Your task to perform on an android device: choose inbox layout in the gmail app Image 0: 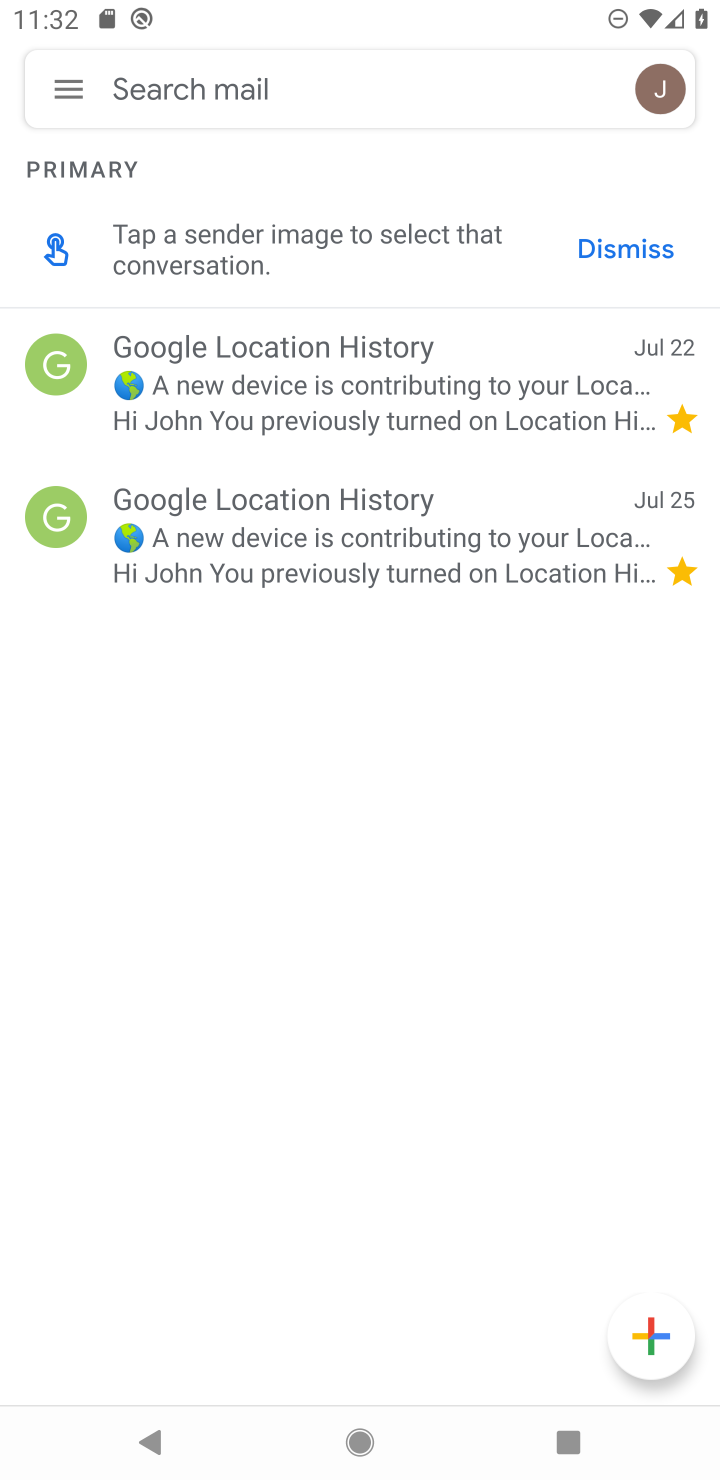
Step 0: drag from (198, 1265) to (415, 674)
Your task to perform on an android device: choose inbox layout in the gmail app Image 1: 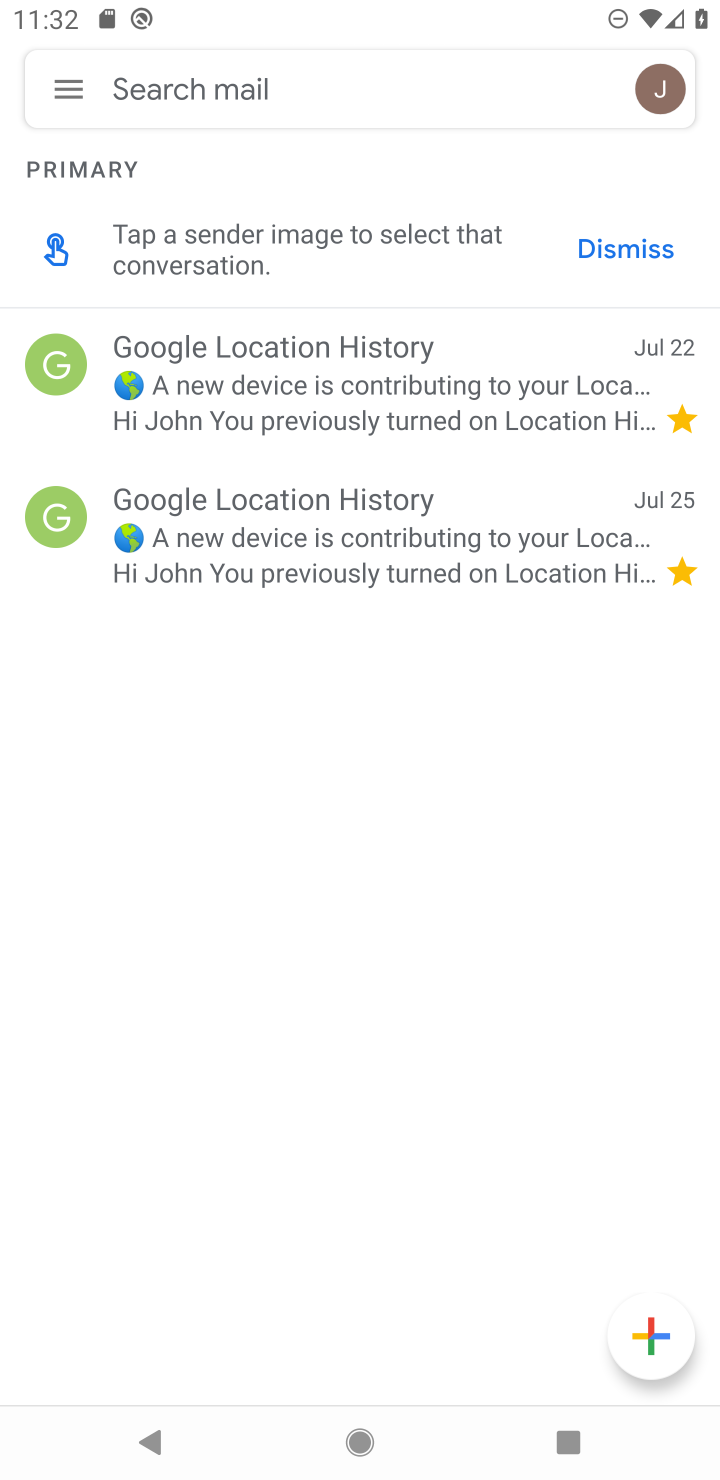
Step 1: drag from (416, 133) to (623, 899)
Your task to perform on an android device: choose inbox layout in the gmail app Image 2: 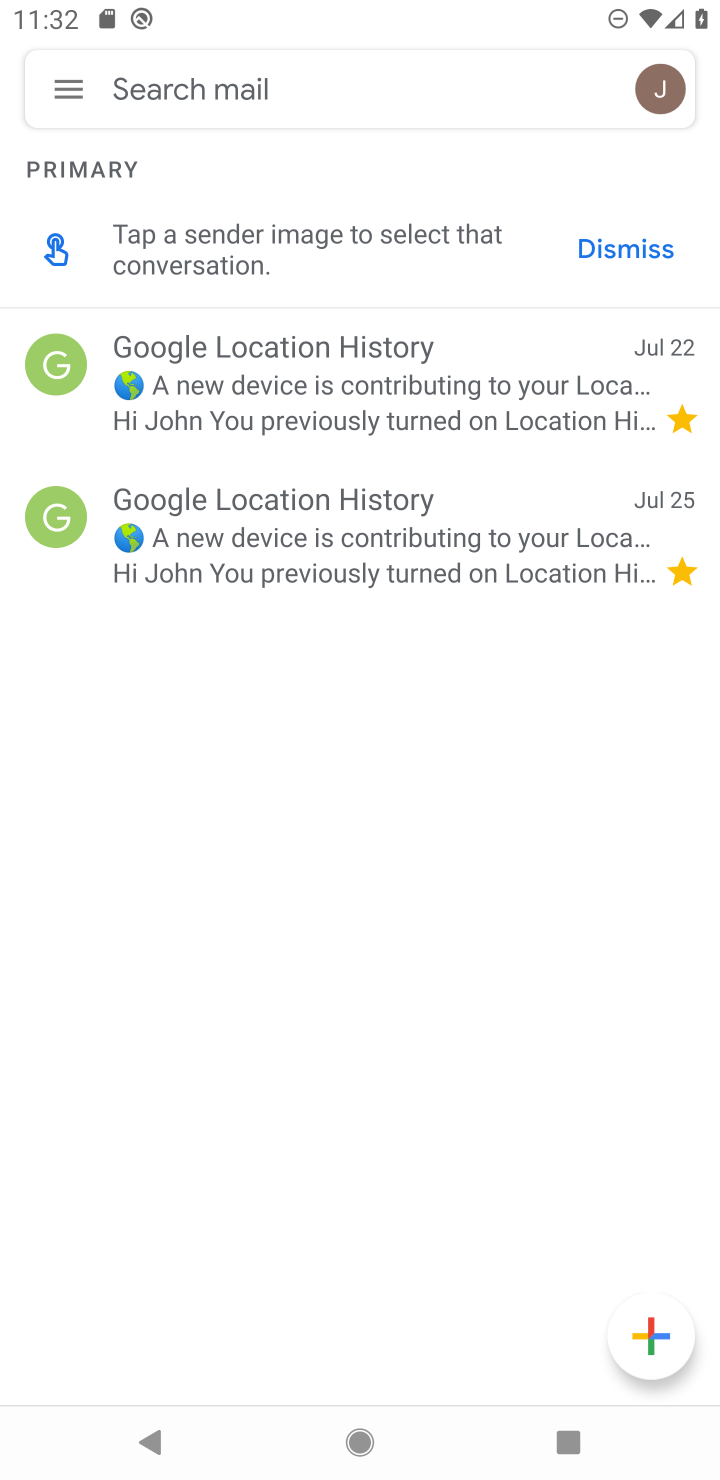
Step 2: drag from (317, 931) to (577, 283)
Your task to perform on an android device: choose inbox layout in the gmail app Image 3: 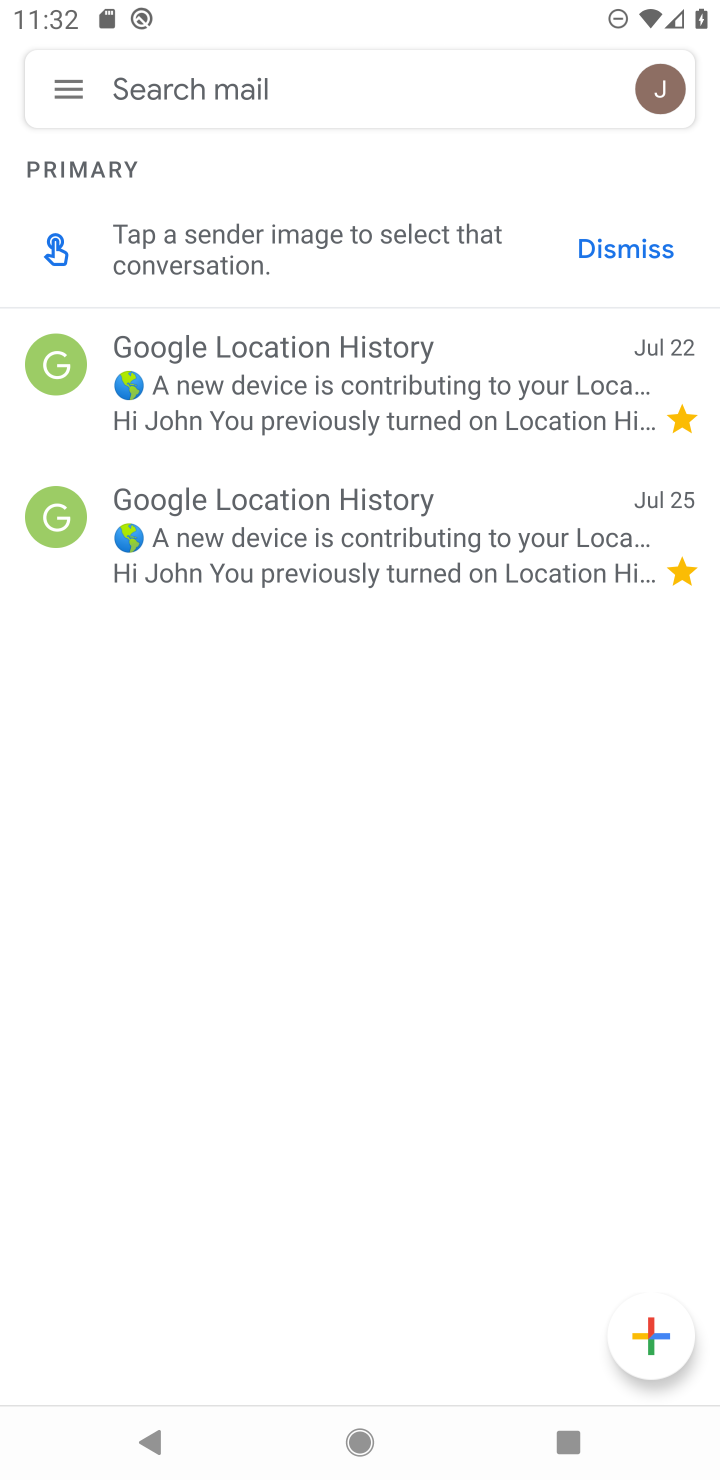
Step 3: drag from (363, 248) to (449, 180)
Your task to perform on an android device: choose inbox layout in the gmail app Image 4: 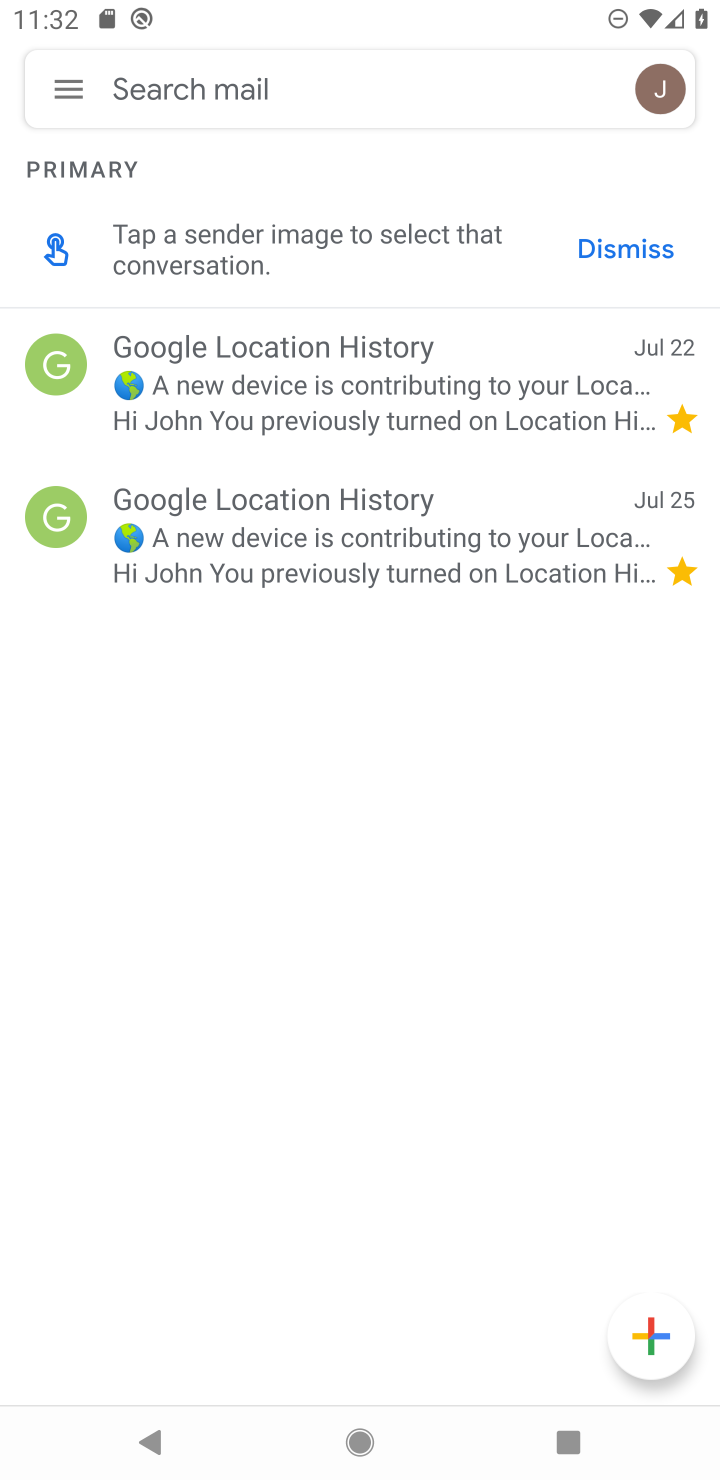
Step 4: drag from (304, 1135) to (505, 657)
Your task to perform on an android device: choose inbox layout in the gmail app Image 5: 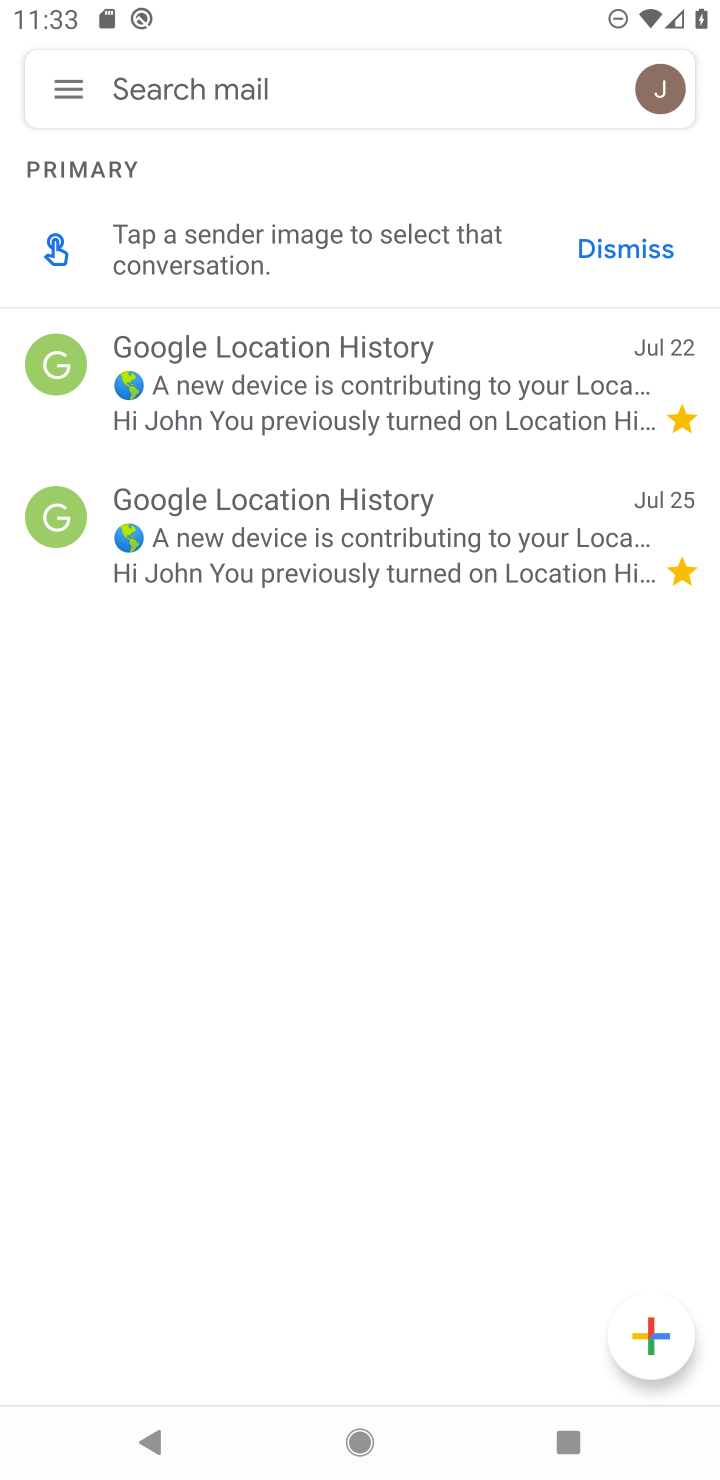
Step 5: drag from (414, 1280) to (365, 831)
Your task to perform on an android device: choose inbox layout in the gmail app Image 6: 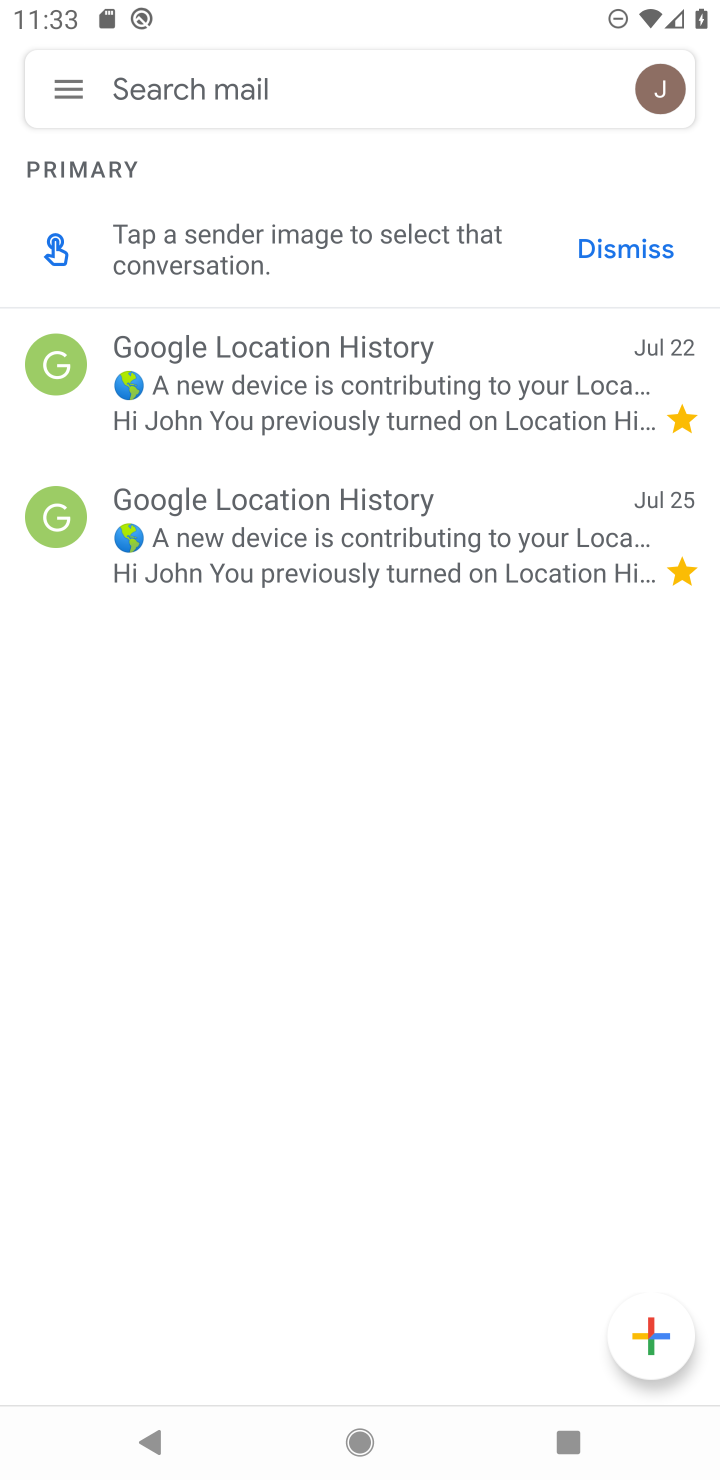
Step 6: drag from (474, 276) to (396, 1289)
Your task to perform on an android device: choose inbox layout in the gmail app Image 7: 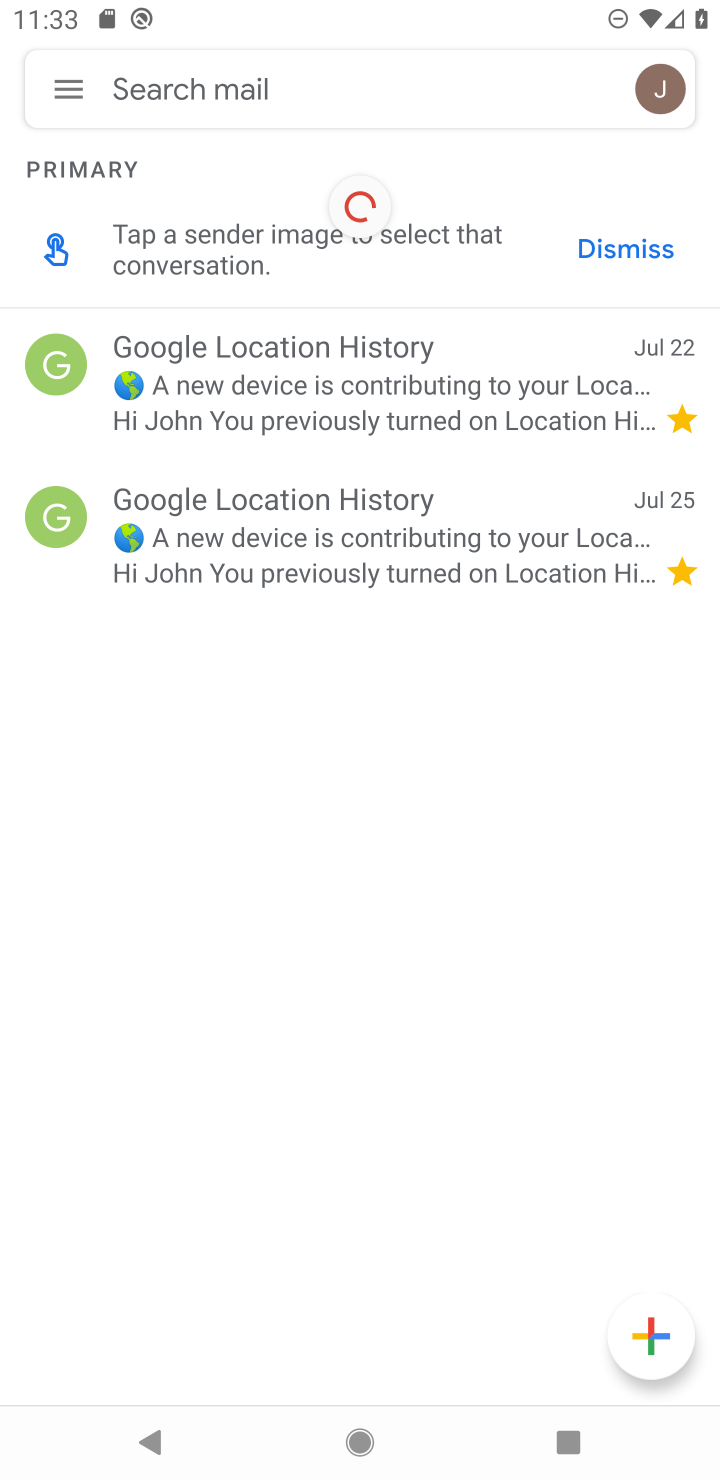
Step 7: click (71, 92)
Your task to perform on an android device: choose inbox layout in the gmail app Image 8: 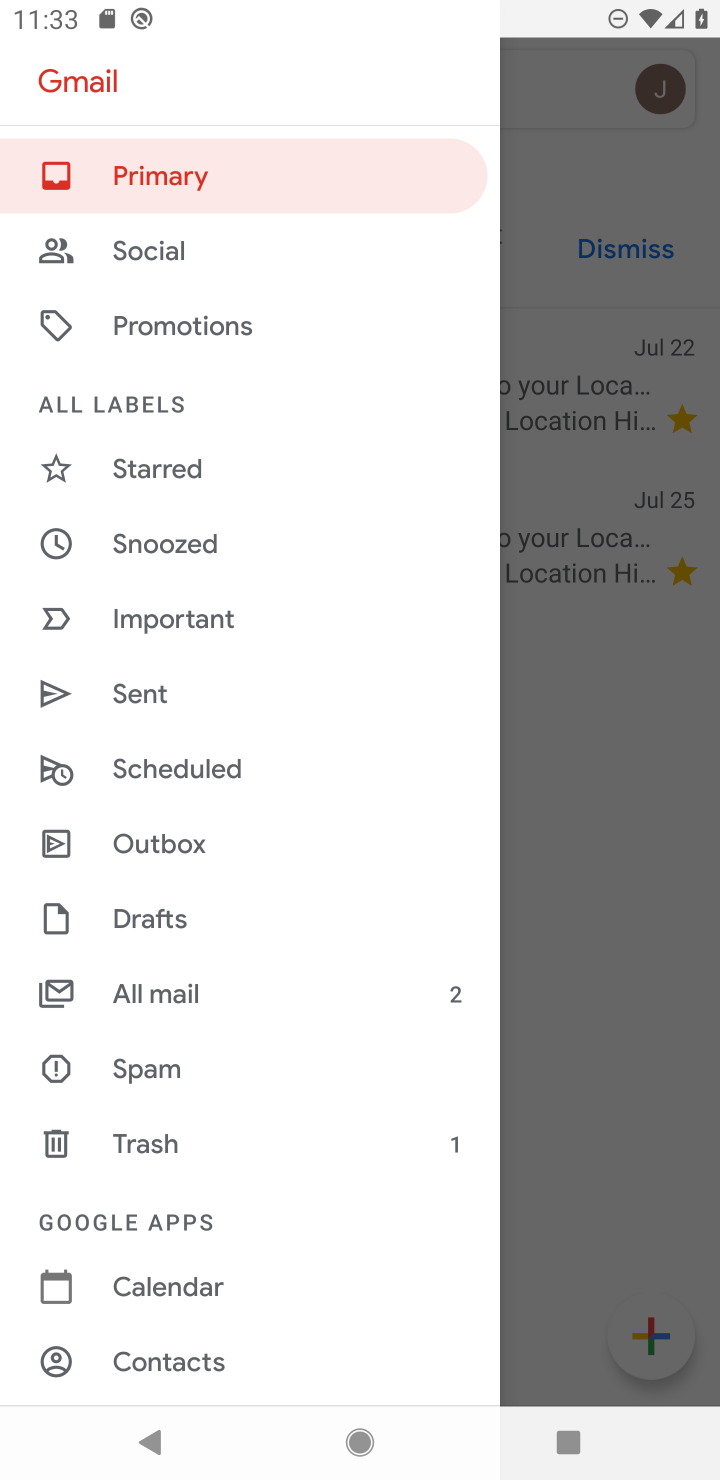
Step 8: click (162, 175)
Your task to perform on an android device: choose inbox layout in the gmail app Image 9: 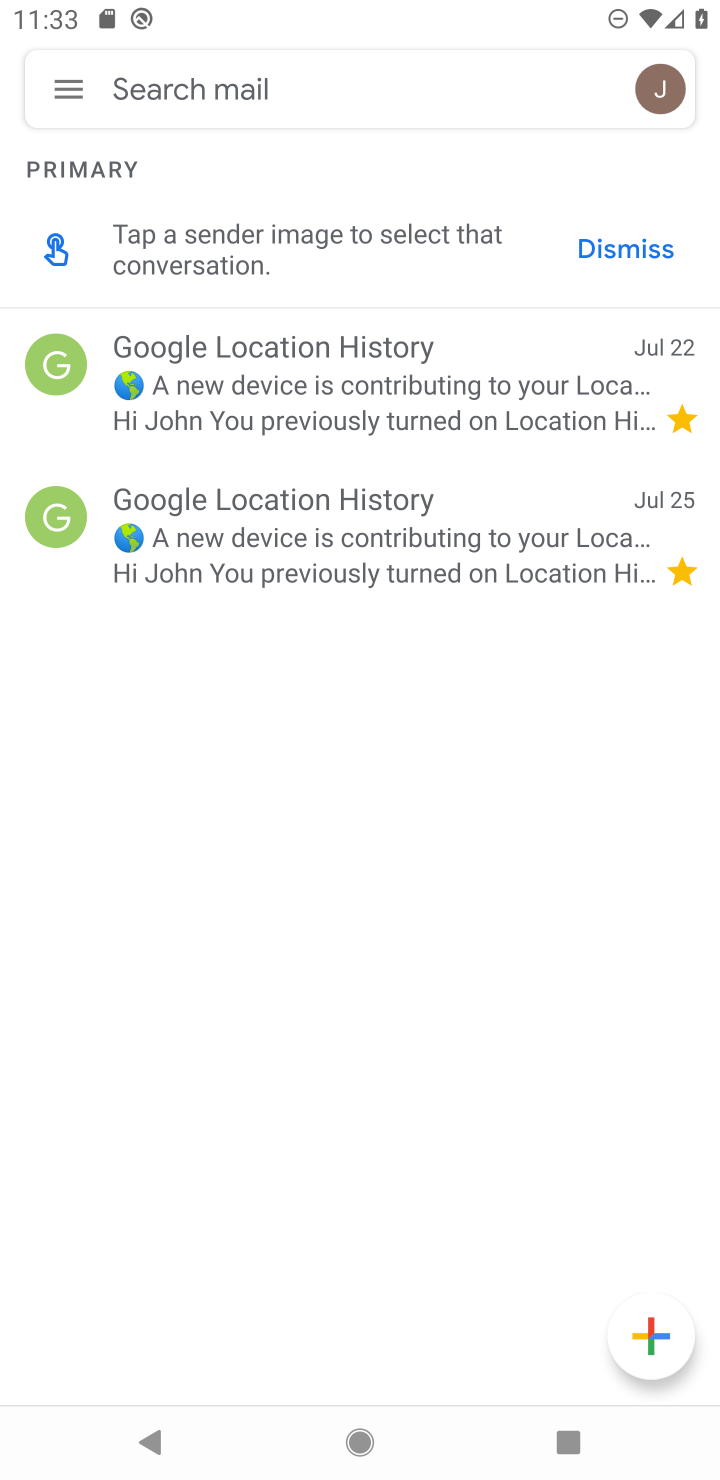
Step 9: drag from (306, 857) to (311, 555)
Your task to perform on an android device: choose inbox layout in the gmail app Image 10: 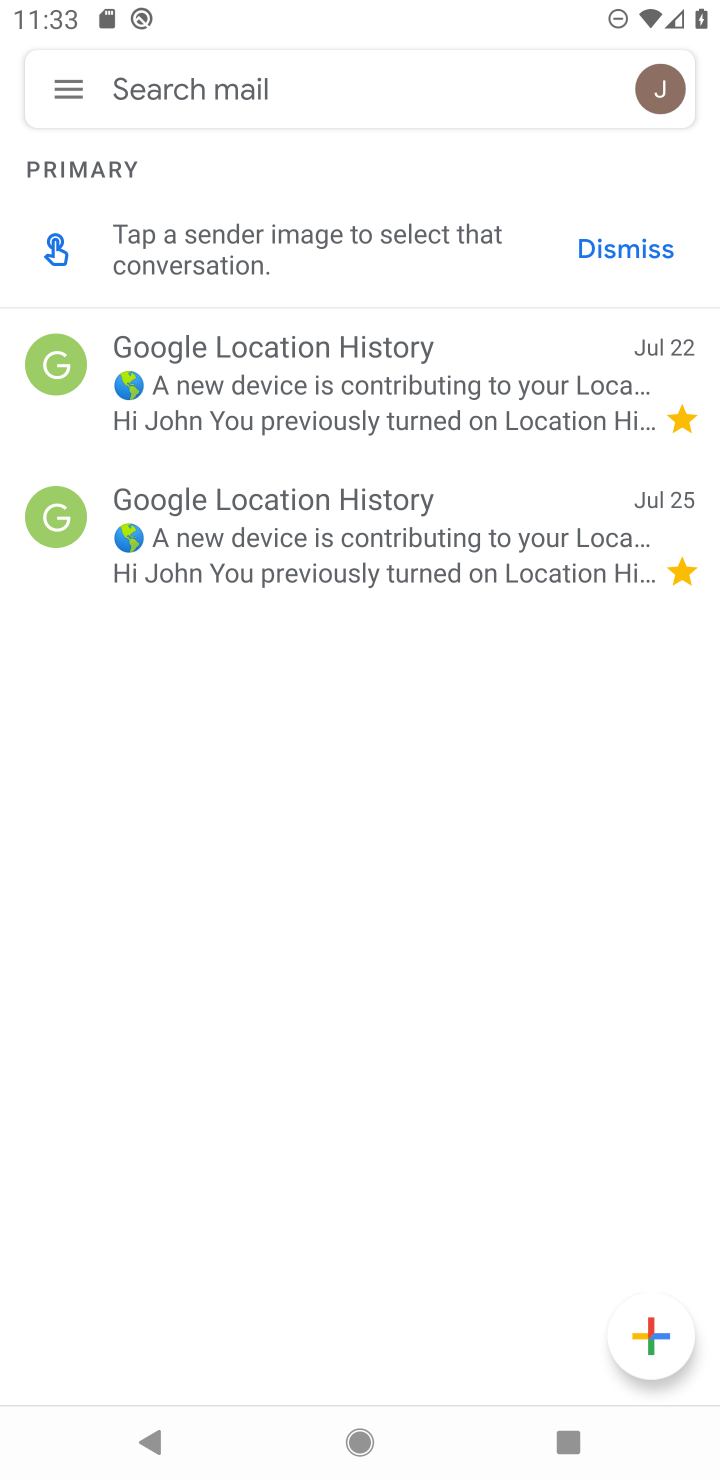
Step 10: click (481, 1024)
Your task to perform on an android device: choose inbox layout in the gmail app Image 11: 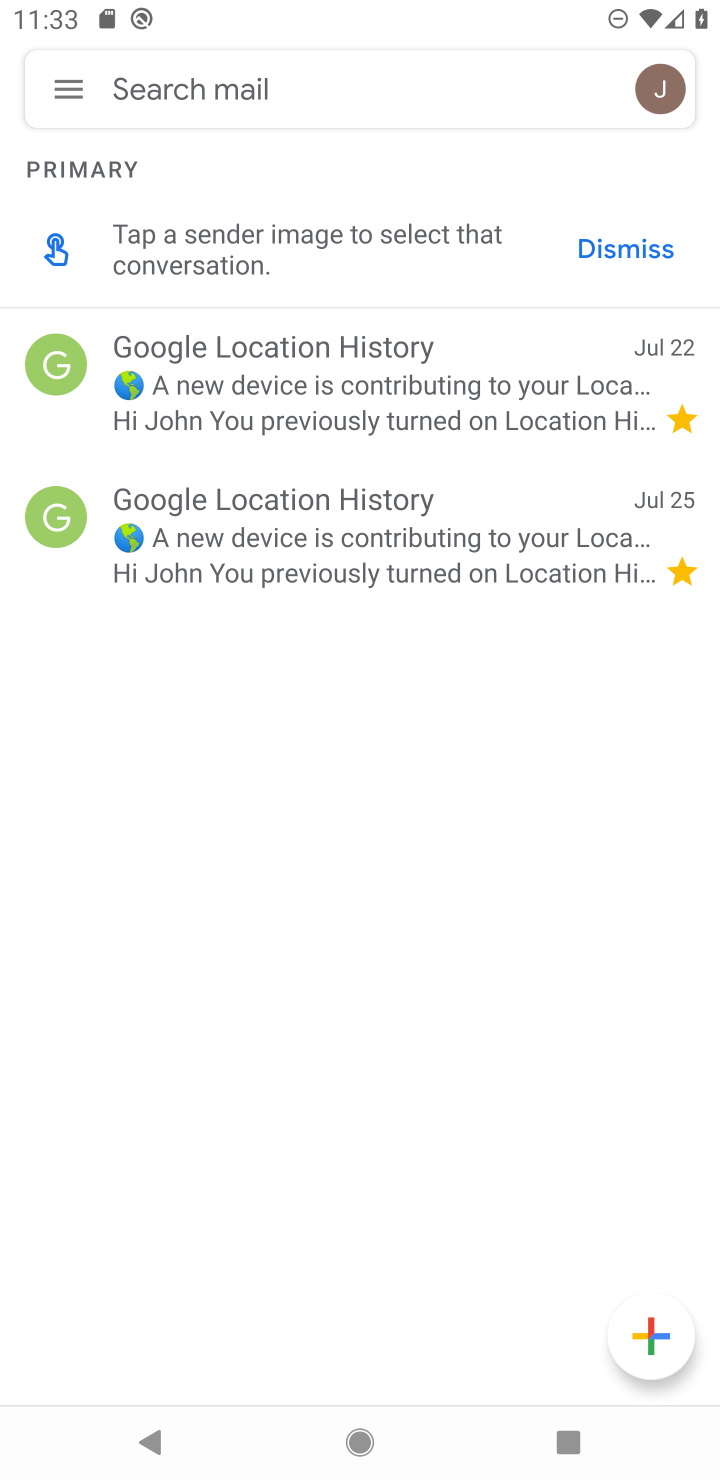
Step 11: click (59, 72)
Your task to perform on an android device: choose inbox layout in the gmail app Image 12: 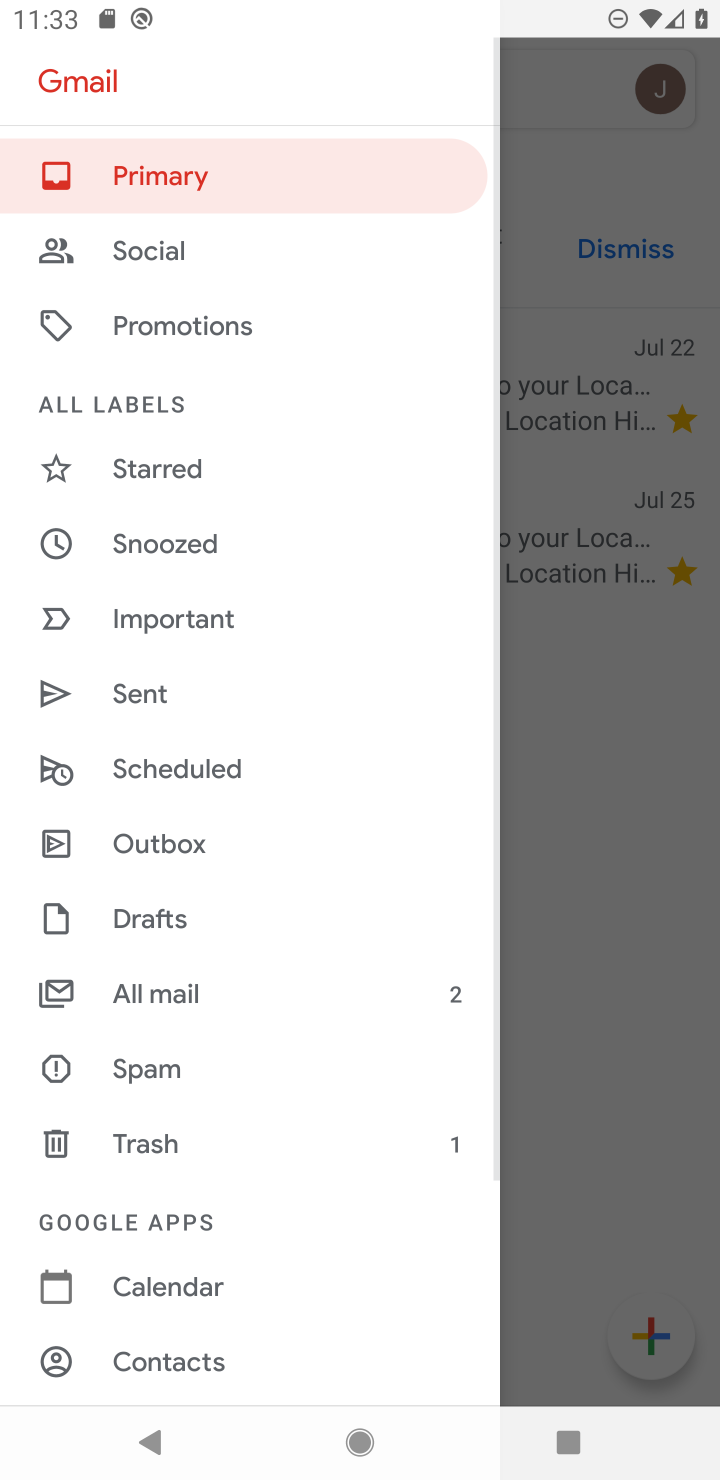
Step 12: click (191, 174)
Your task to perform on an android device: choose inbox layout in the gmail app Image 13: 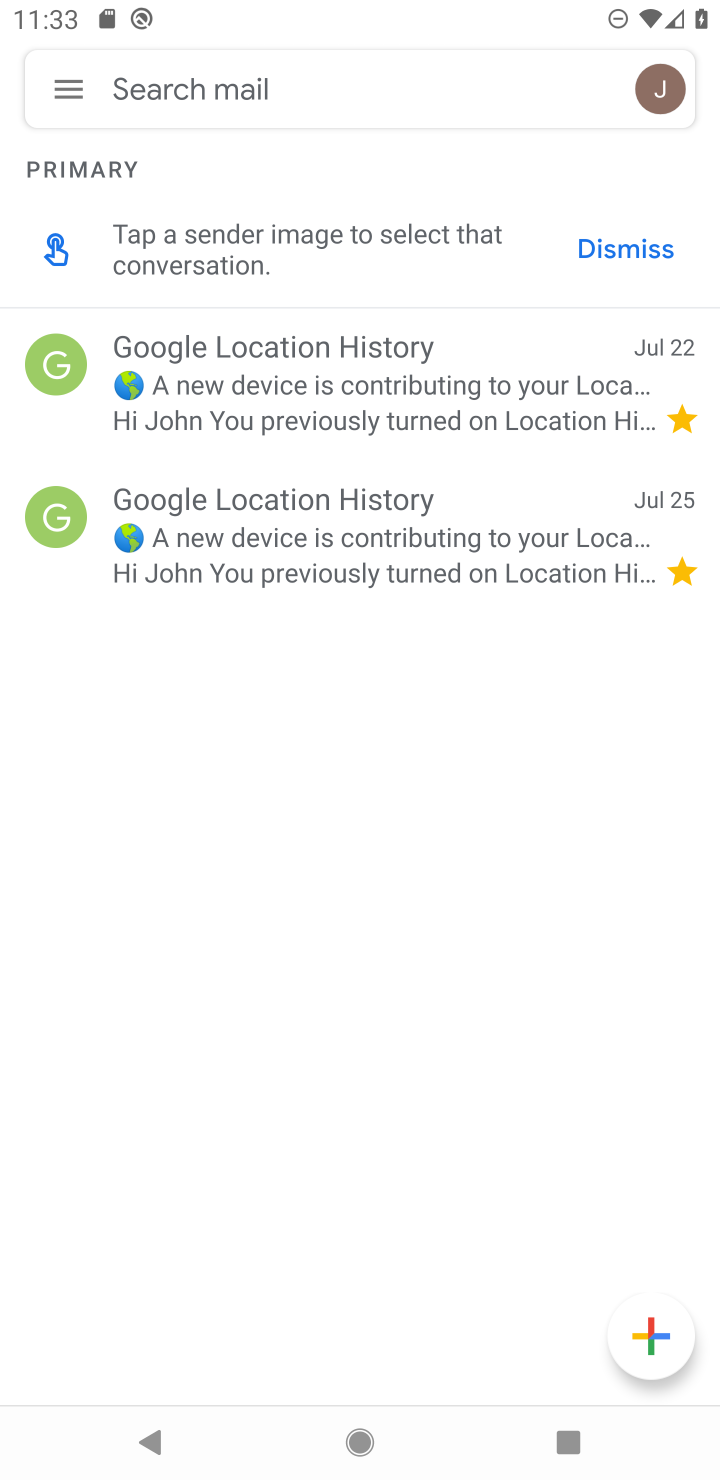
Step 13: task complete